Your task to perform on an android device: turn off location history Image 0: 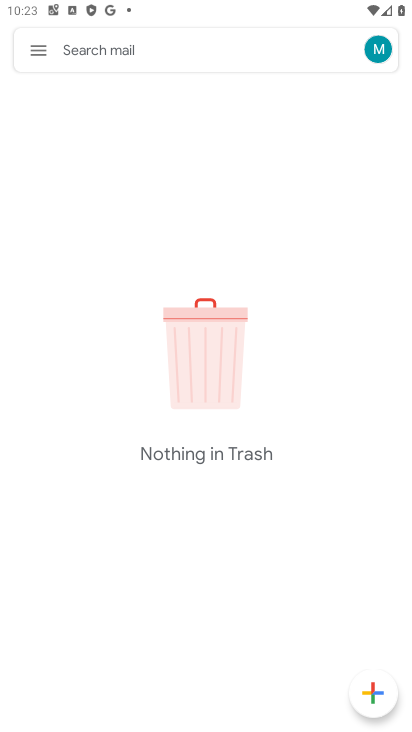
Step 0: press home button
Your task to perform on an android device: turn off location history Image 1: 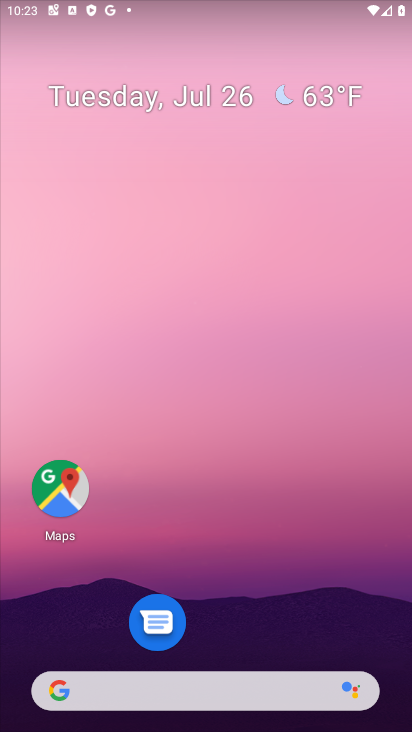
Step 1: drag from (252, 570) to (135, 1)
Your task to perform on an android device: turn off location history Image 2: 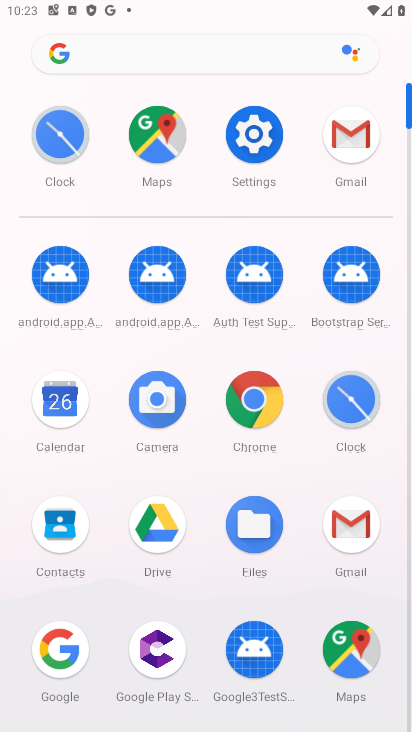
Step 2: click (256, 148)
Your task to perform on an android device: turn off location history Image 3: 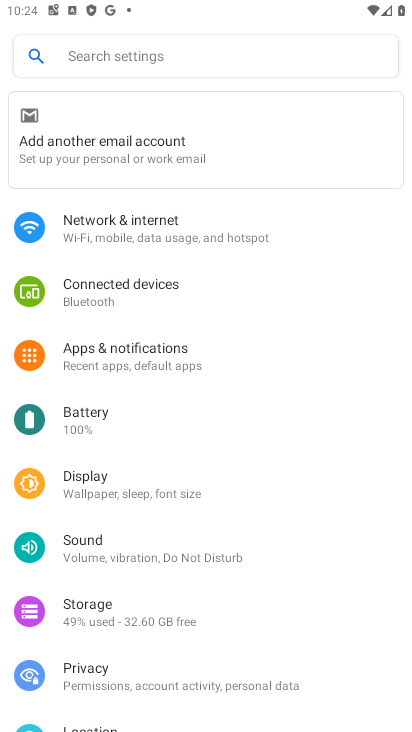
Step 3: drag from (123, 578) to (88, 208)
Your task to perform on an android device: turn off location history Image 4: 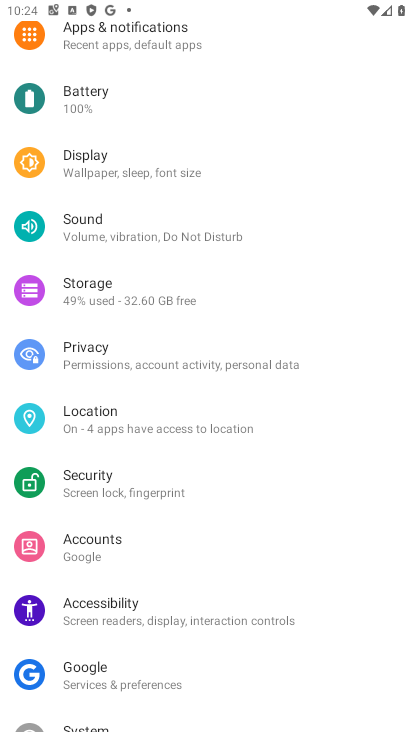
Step 4: click (151, 419)
Your task to perform on an android device: turn off location history Image 5: 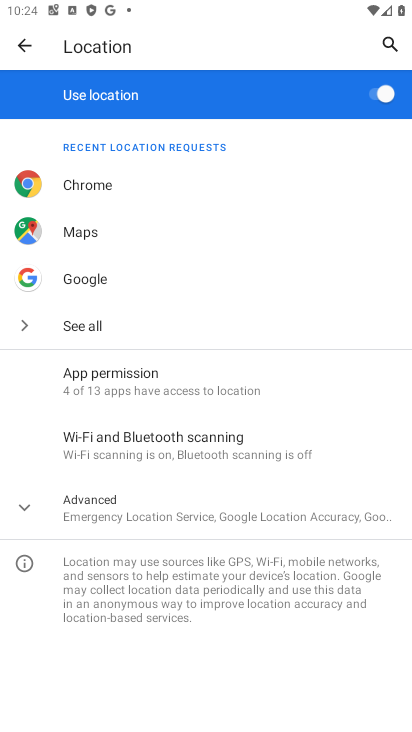
Step 5: click (139, 509)
Your task to perform on an android device: turn off location history Image 6: 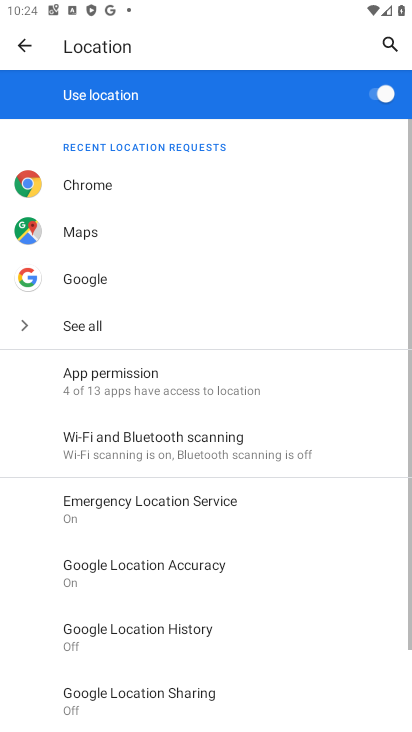
Step 6: drag from (192, 653) to (220, 181)
Your task to perform on an android device: turn off location history Image 7: 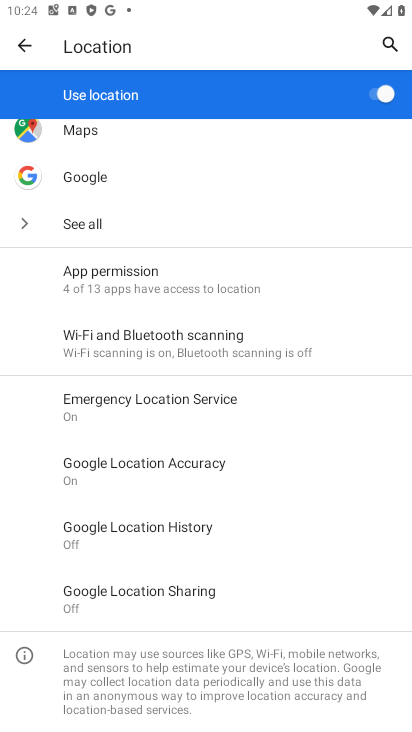
Step 7: click (191, 528)
Your task to perform on an android device: turn off location history Image 8: 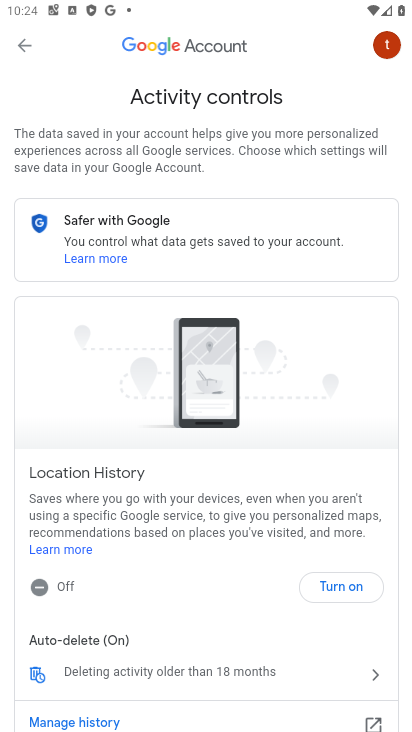
Step 8: task complete